Your task to perform on an android device: open device folders in google photos Image 0: 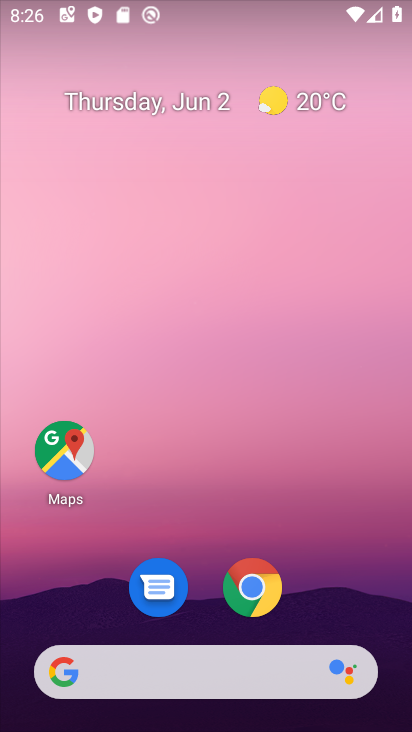
Step 0: drag from (209, 615) to (211, 220)
Your task to perform on an android device: open device folders in google photos Image 1: 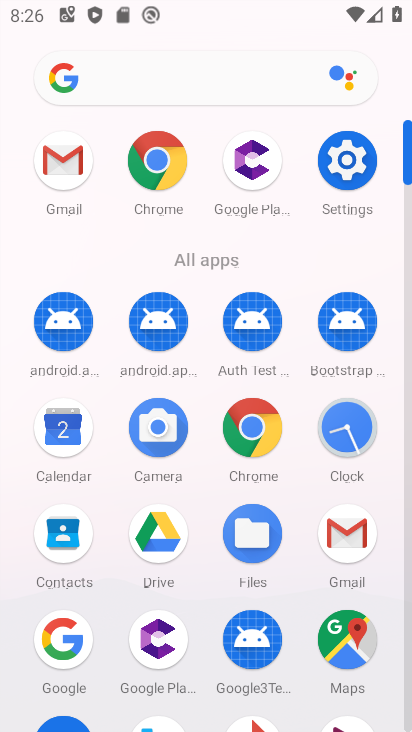
Step 1: drag from (210, 646) to (225, 89)
Your task to perform on an android device: open device folders in google photos Image 2: 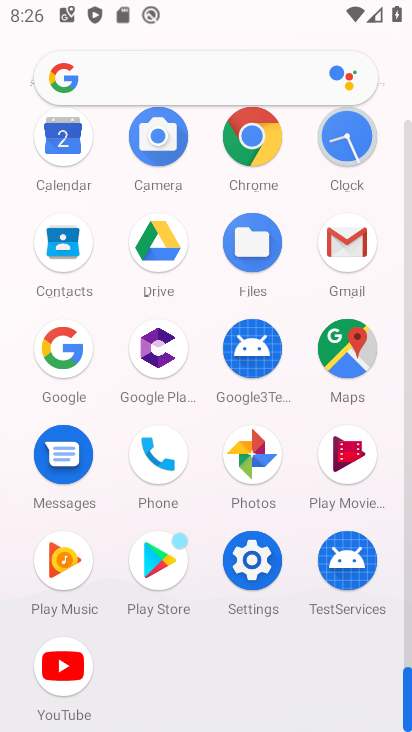
Step 2: click (246, 477)
Your task to perform on an android device: open device folders in google photos Image 3: 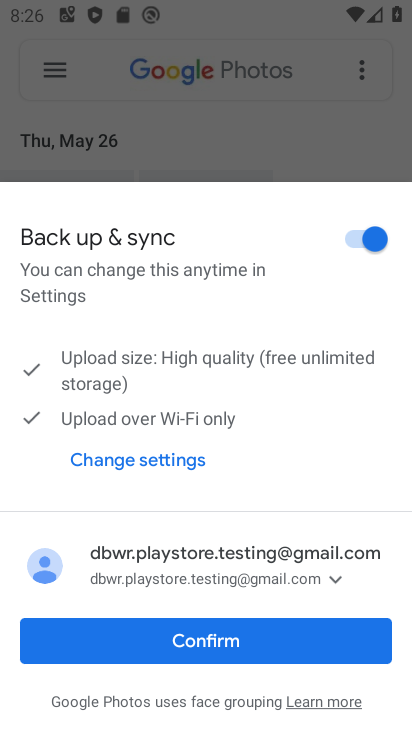
Step 3: click (143, 644)
Your task to perform on an android device: open device folders in google photos Image 4: 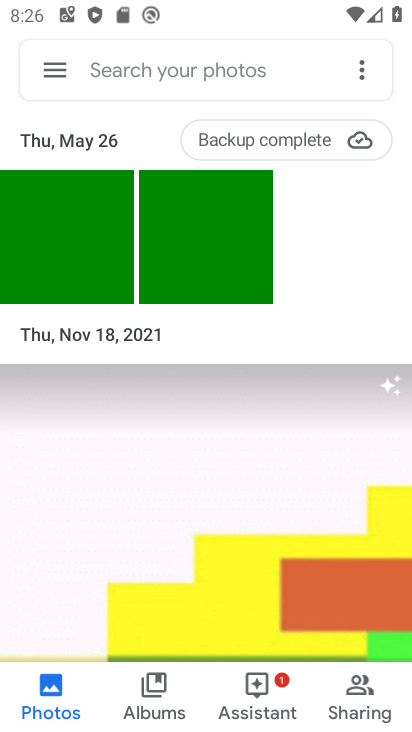
Step 4: click (63, 67)
Your task to perform on an android device: open device folders in google photos Image 5: 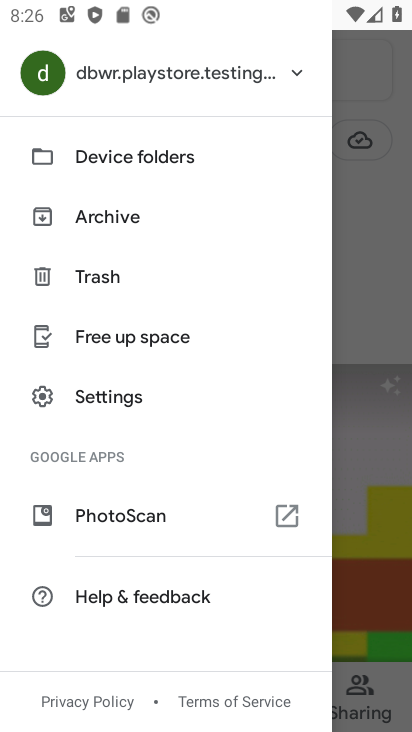
Step 5: click (136, 147)
Your task to perform on an android device: open device folders in google photos Image 6: 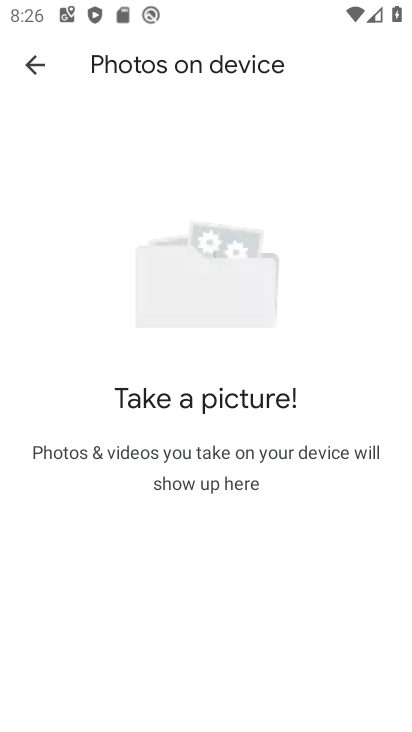
Step 6: task complete